Your task to perform on an android device: Open calendar and show me the first week of next month Image 0: 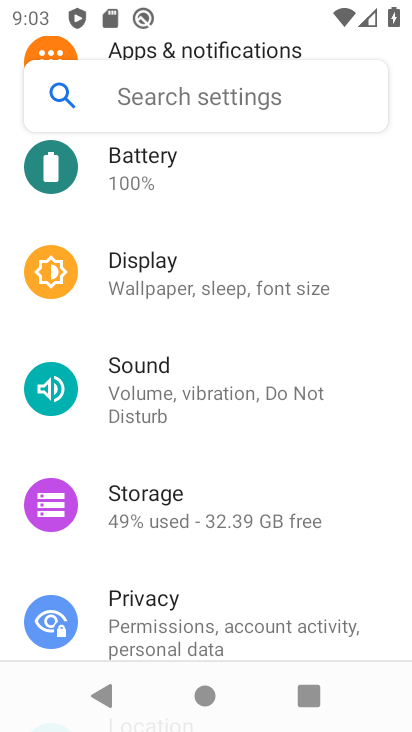
Step 0: press home button
Your task to perform on an android device: Open calendar and show me the first week of next month Image 1: 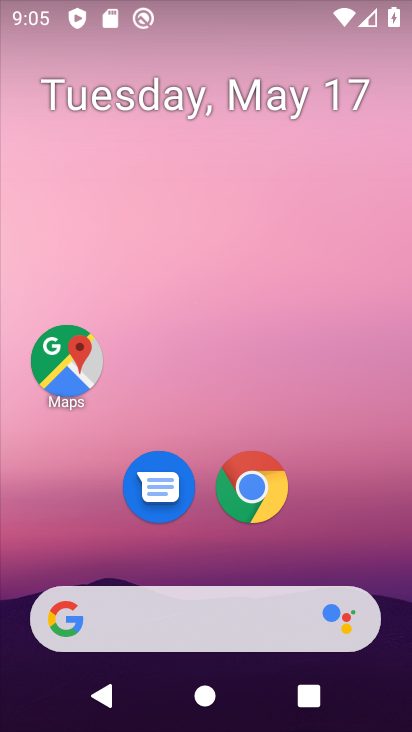
Step 1: drag from (228, 635) to (73, 169)
Your task to perform on an android device: Open calendar and show me the first week of next month Image 2: 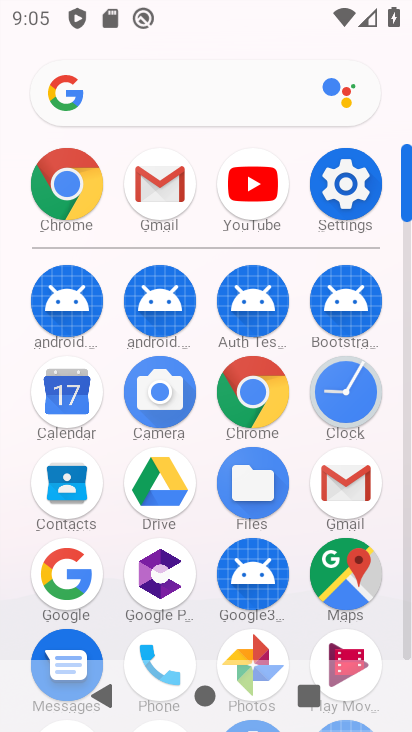
Step 2: click (82, 410)
Your task to perform on an android device: Open calendar and show me the first week of next month Image 3: 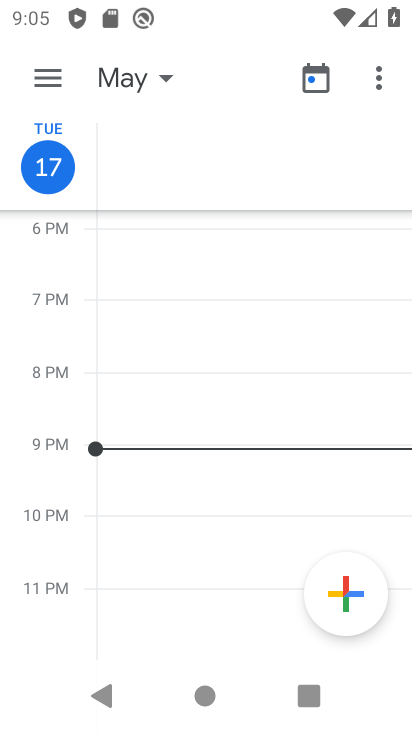
Step 3: click (58, 77)
Your task to perform on an android device: Open calendar and show me the first week of next month Image 4: 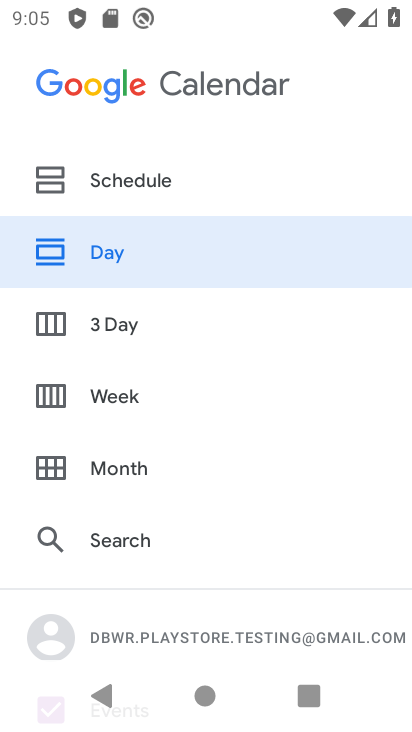
Step 4: click (142, 467)
Your task to perform on an android device: Open calendar and show me the first week of next month Image 5: 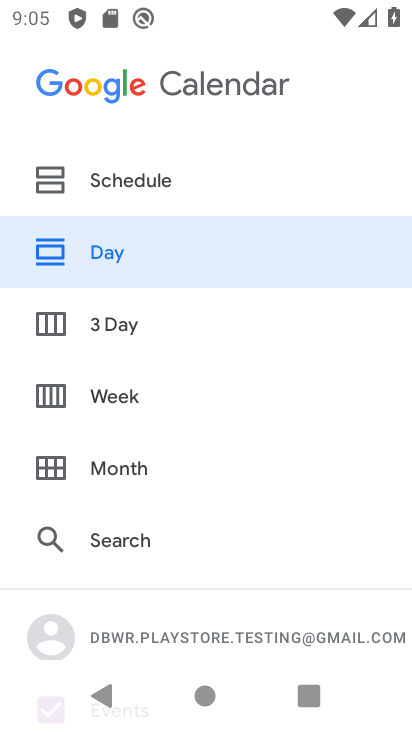
Step 5: click (125, 480)
Your task to perform on an android device: Open calendar and show me the first week of next month Image 6: 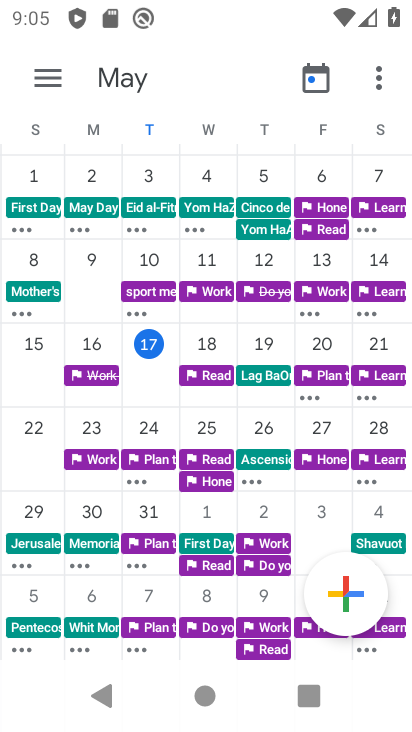
Step 6: drag from (387, 413) to (0, 467)
Your task to perform on an android device: Open calendar and show me the first week of next month Image 7: 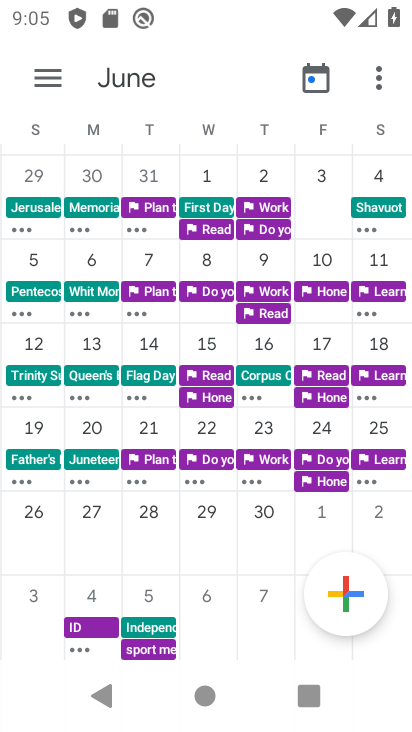
Step 7: click (193, 187)
Your task to perform on an android device: Open calendar and show me the first week of next month Image 8: 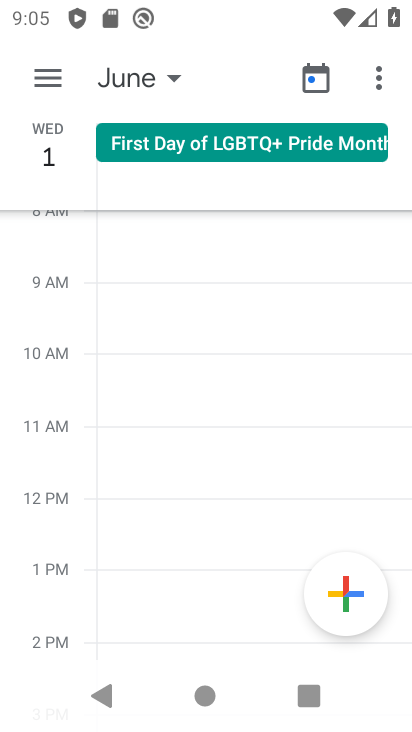
Step 8: task complete